Your task to perform on an android device: change keyboard looks Image 0: 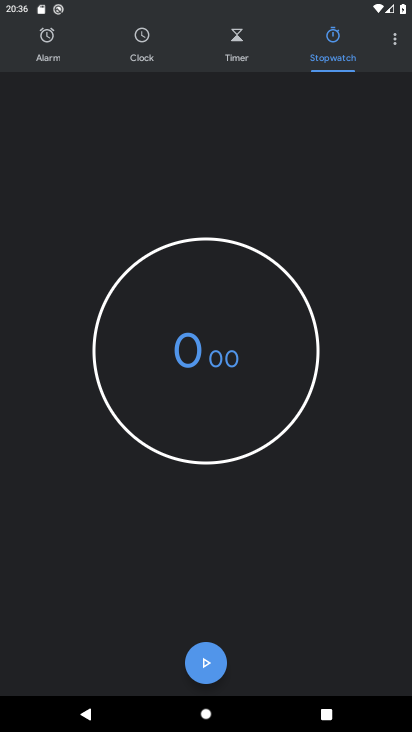
Step 0: press home button
Your task to perform on an android device: change keyboard looks Image 1: 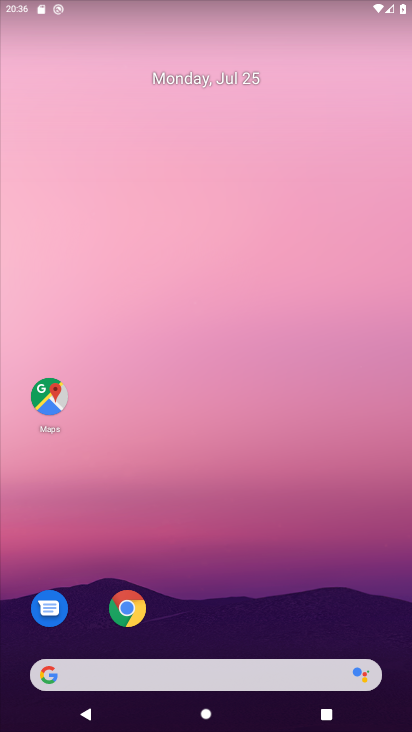
Step 1: drag from (287, 608) to (344, 30)
Your task to perform on an android device: change keyboard looks Image 2: 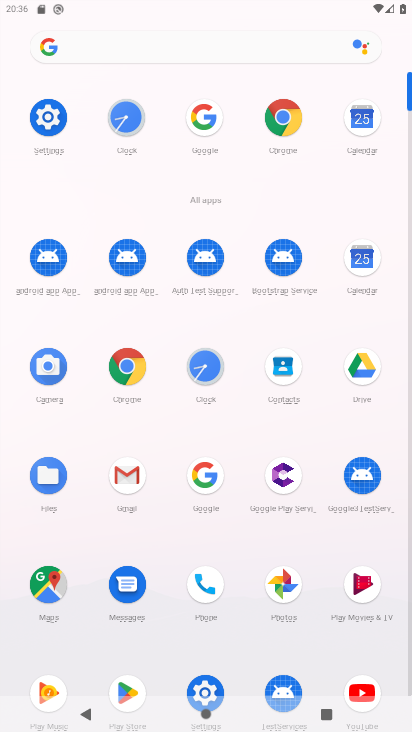
Step 2: click (52, 116)
Your task to perform on an android device: change keyboard looks Image 3: 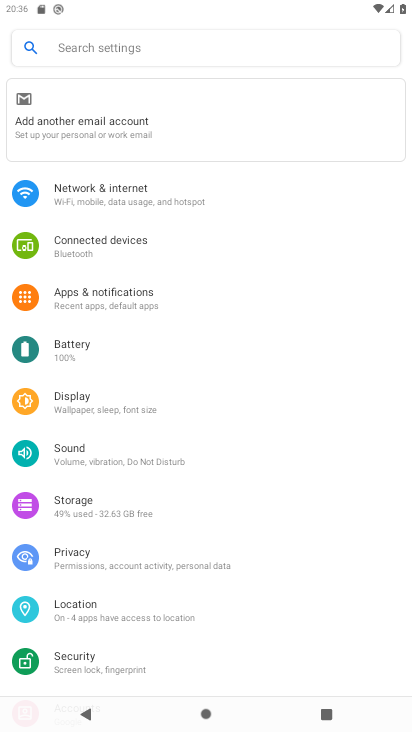
Step 3: drag from (186, 622) to (199, 287)
Your task to perform on an android device: change keyboard looks Image 4: 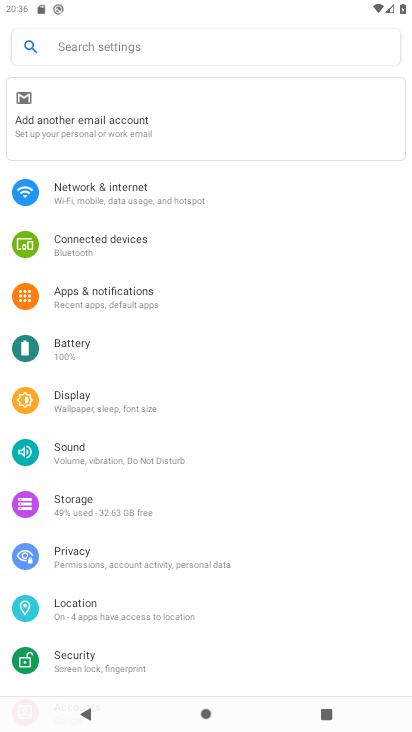
Step 4: drag from (202, 623) to (187, 72)
Your task to perform on an android device: change keyboard looks Image 5: 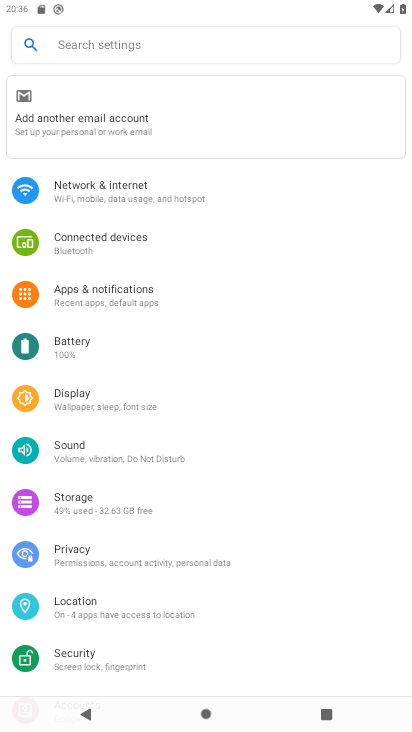
Step 5: drag from (172, 566) to (190, 114)
Your task to perform on an android device: change keyboard looks Image 6: 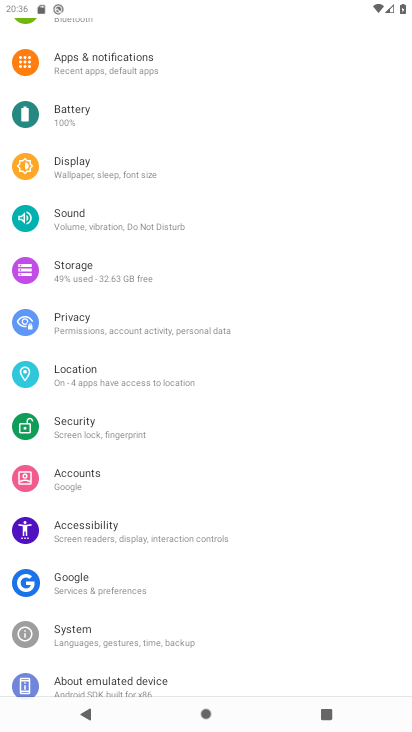
Step 6: click (156, 631)
Your task to perform on an android device: change keyboard looks Image 7: 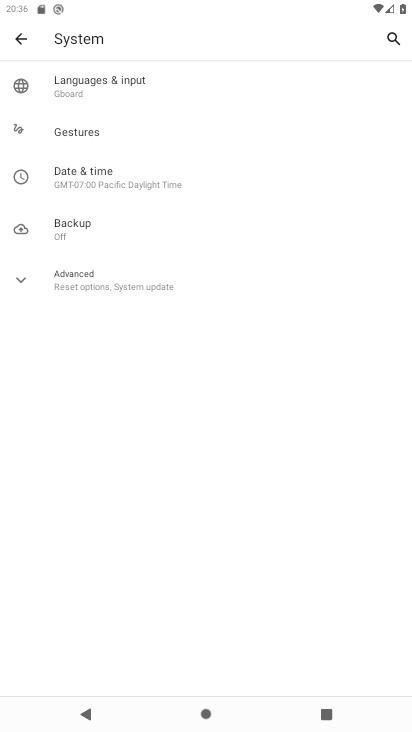
Step 7: click (122, 81)
Your task to perform on an android device: change keyboard looks Image 8: 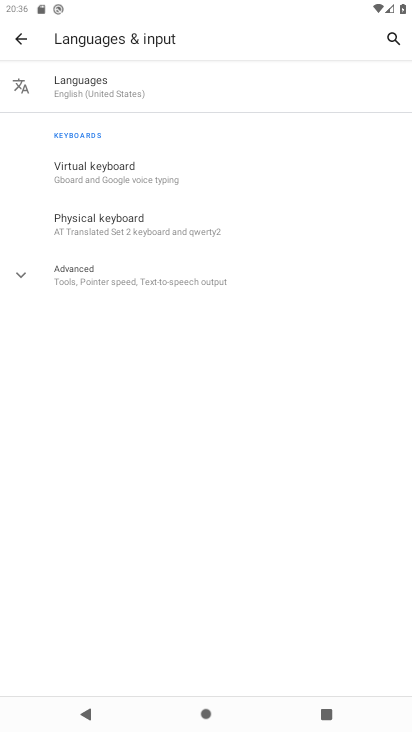
Step 8: click (96, 161)
Your task to perform on an android device: change keyboard looks Image 9: 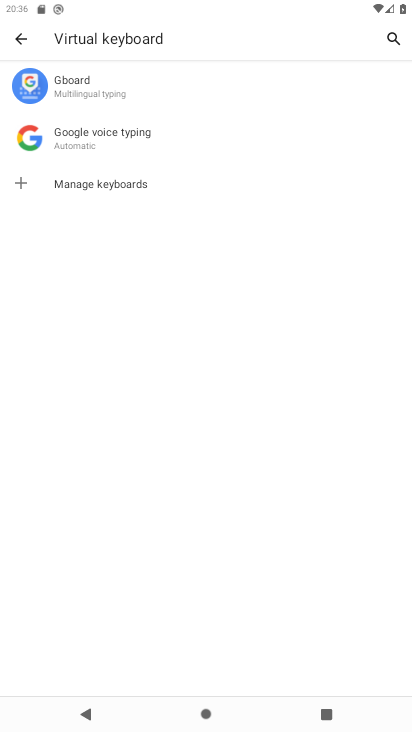
Step 9: click (104, 87)
Your task to perform on an android device: change keyboard looks Image 10: 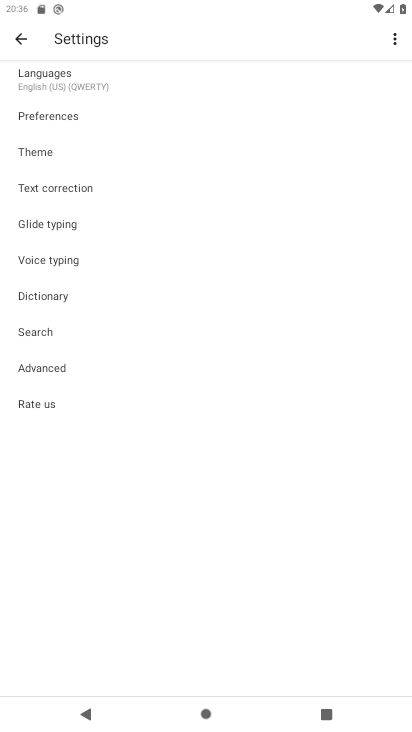
Step 10: click (34, 156)
Your task to perform on an android device: change keyboard looks Image 11: 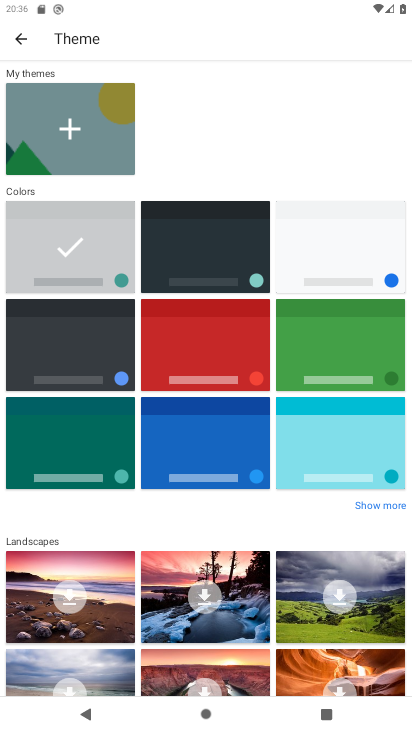
Step 11: click (367, 462)
Your task to perform on an android device: change keyboard looks Image 12: 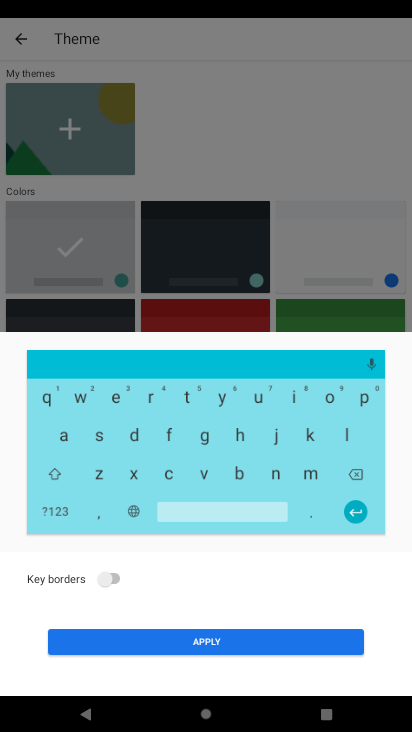
Step 12: click (250, 647)
Your task to perform on an android device: change keyboard looks Image 13: 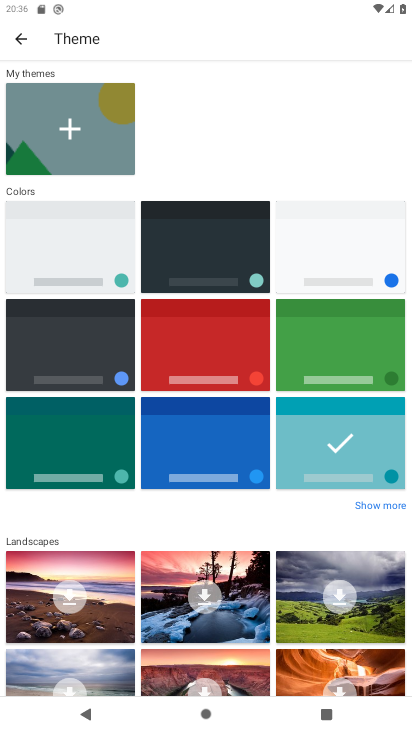
Step 13: task complete